Your task to perform on an android device: Open Chrome and go to settings Image 0: 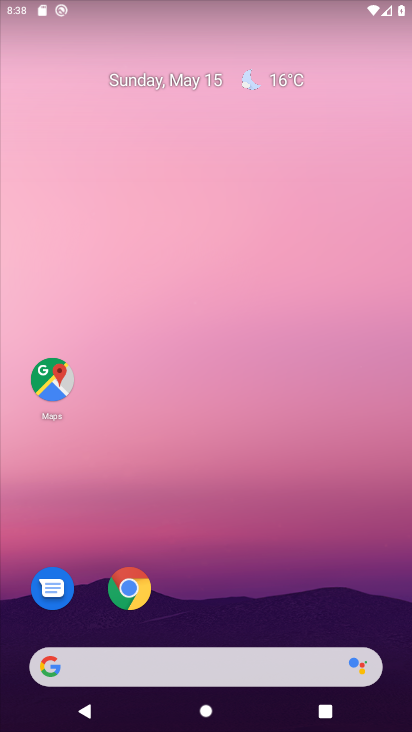
Step 0: click (135, 587)
Your task to perform on an android device: Open Chrome and go to settings Image 1: 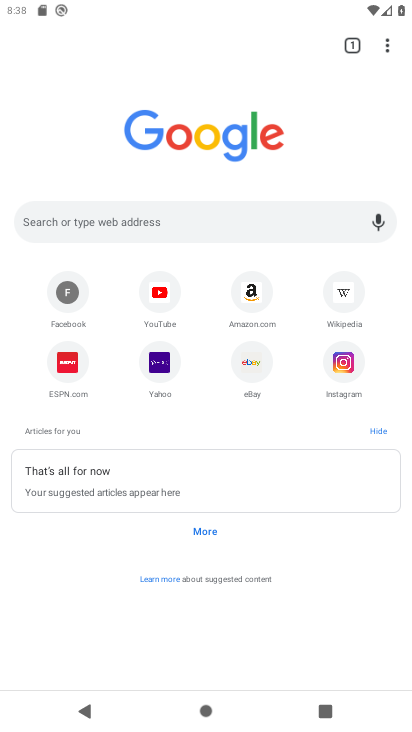
Step 1: click (386, 49)
Your task to perform on an android device: Open Chrome and go to settings Image 2: 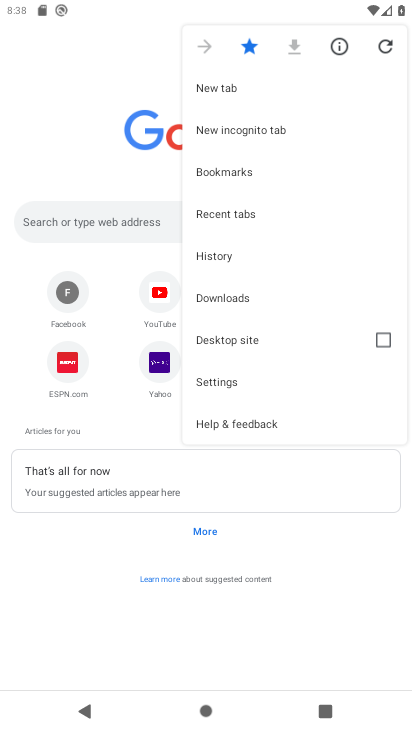
Step 2: click (227, 381)
Your task to perform on an android device: Open Chrome and go to settings Image 3: 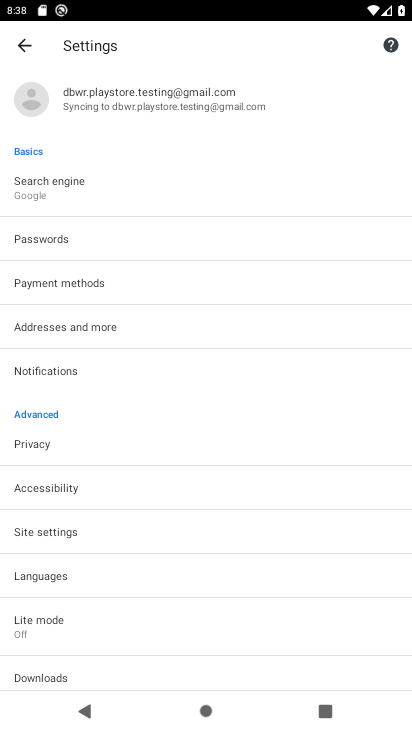
Step 3: task complete